Your task to perform on an android device: Show me recent news Image 0: 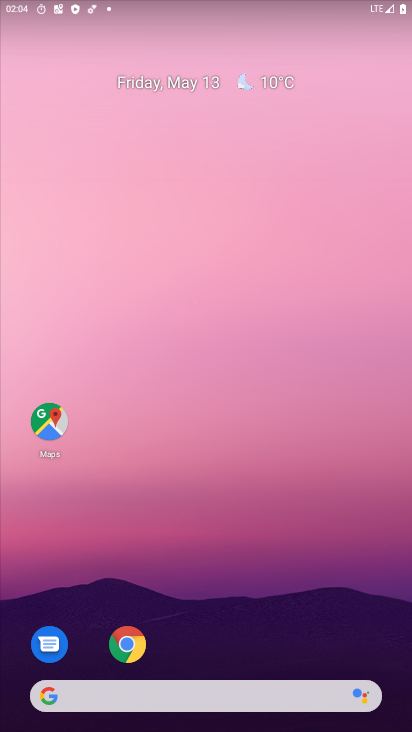
Step 0: drag from (267, 681) to (326, 11)
Your task to perform on an android device: Show me recent news Image 1: 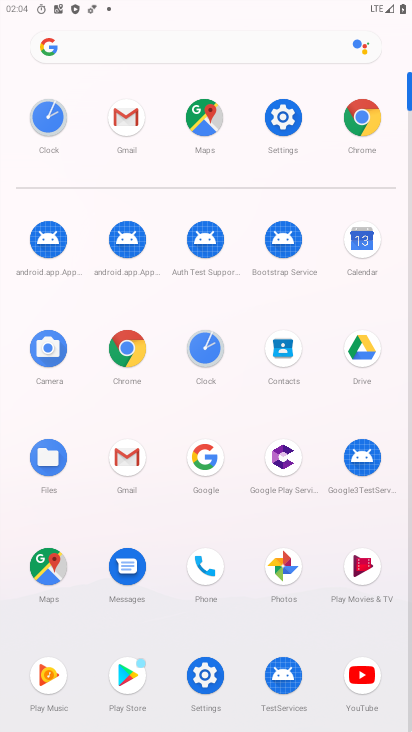
Step 1: click (113, 342)
Your task to perform on an android device: Show me recent news Image 2: 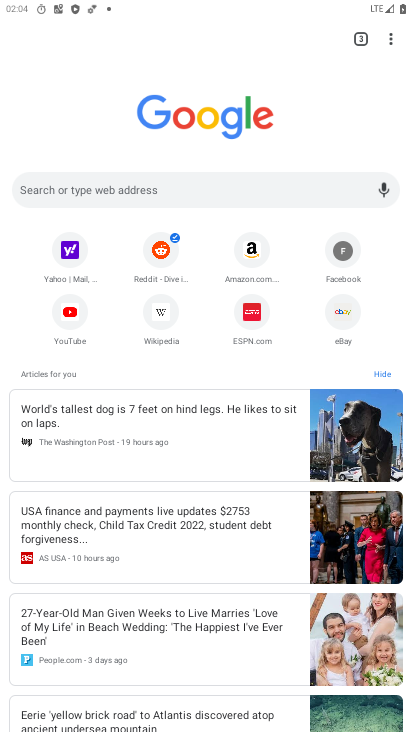
Step 2: click (148, 200)
Your task to perform on an android device: Show me recent news Image 3: 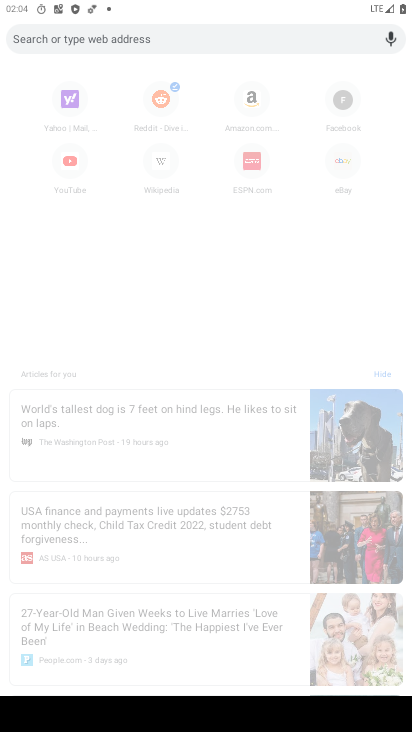
Step 3: type "recent news"
Your task to perform on an android device: Show me recent news Image 4: 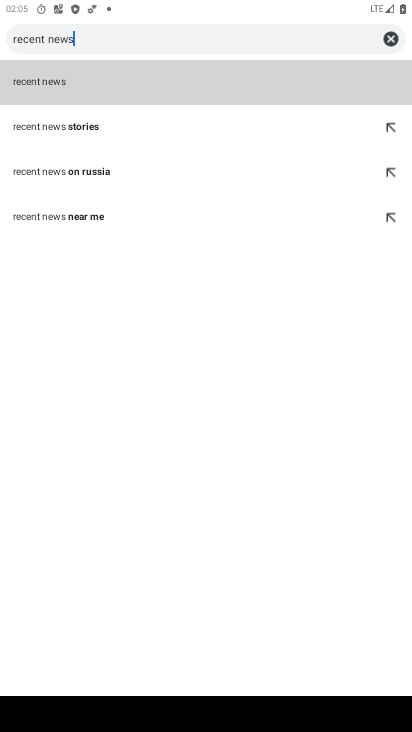
Step 4: click (29, 82)
Your task to perform on an android device: Show me recent news Image 5: 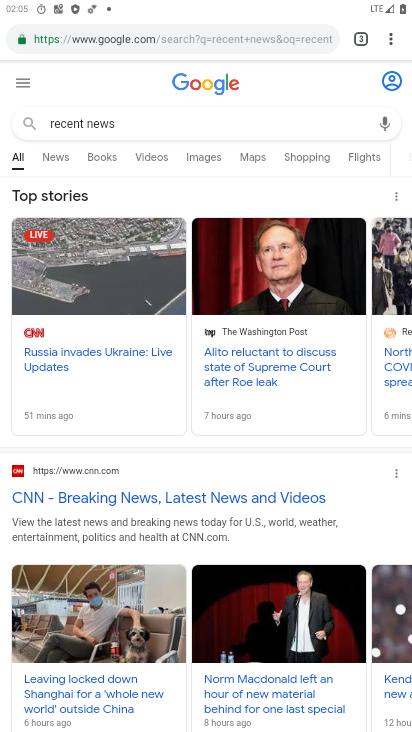
Step 5: task complete